Your task to perform on an android device: empty trash in google photos Image 0: 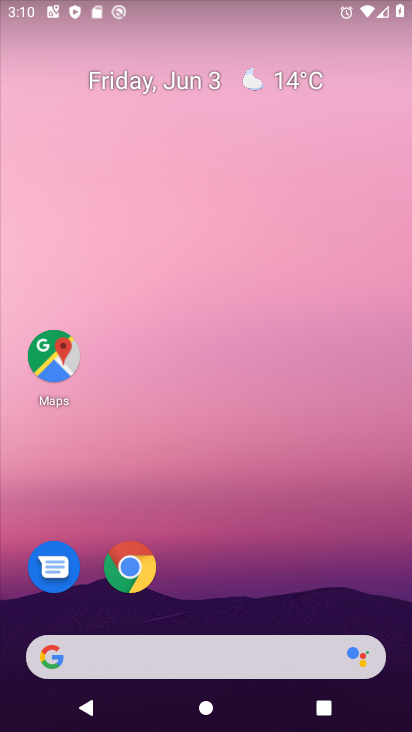
Step 0: drag from (193, 689) to (206, 251)
Your task to perform on an android device: empty trash in google photos Image 1: 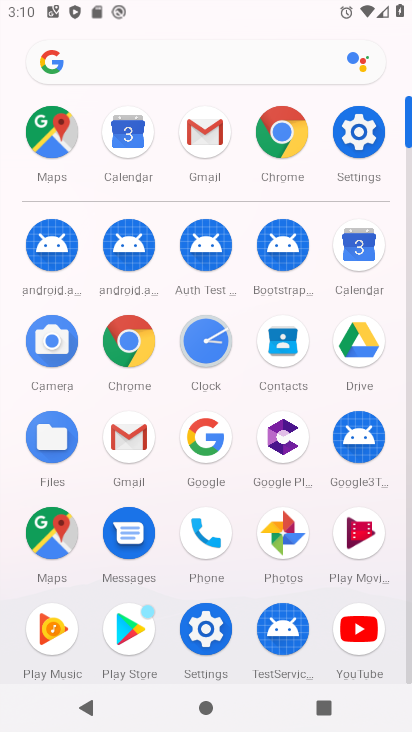
Step 1: click (290, 553)
Your task to perform on an android device: empty trash in google photos Image 2: 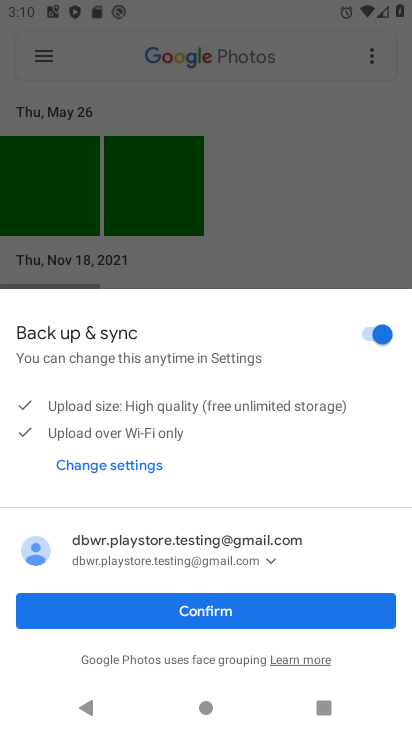
Step 2: click (235, 612)
Your task to perform on an android device: empty trash in google photos Image 3: 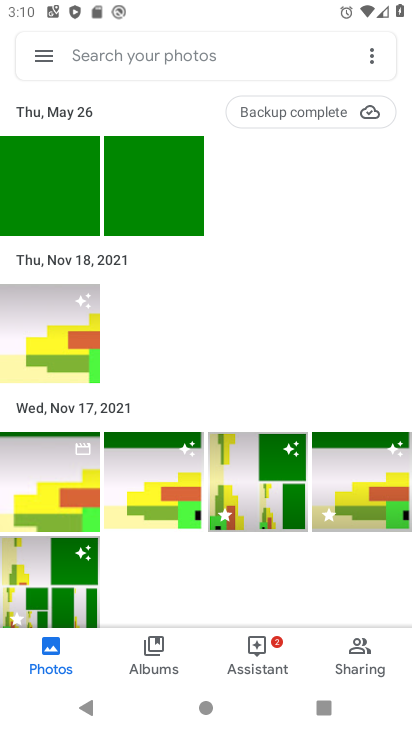
Step 3: click (28, 45)
Your task to perform on an android device: empty trash in google photos Image 4: 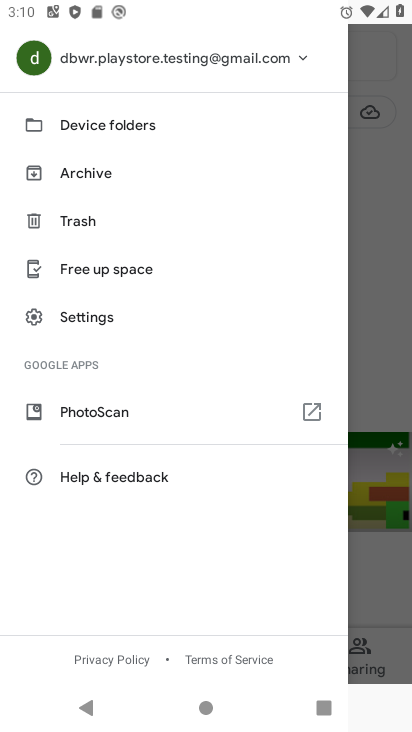
Step 4: click (97, 223)
Your task to perform on an android device: empty trash in google photos Image 5: 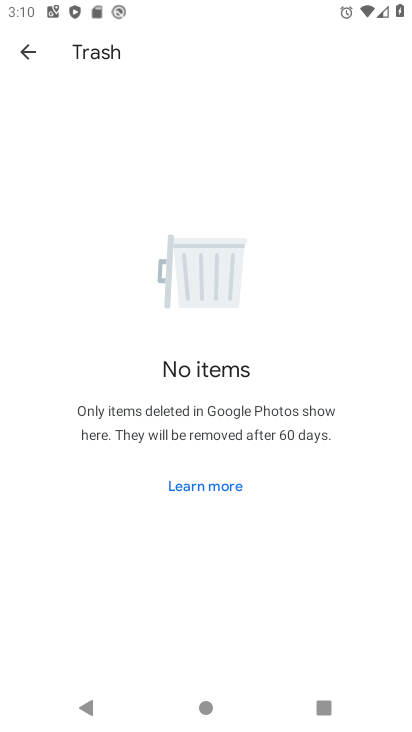
Step 5: task complete